Your task to perform on an android device: open a new tab in the chrome app Image 0: 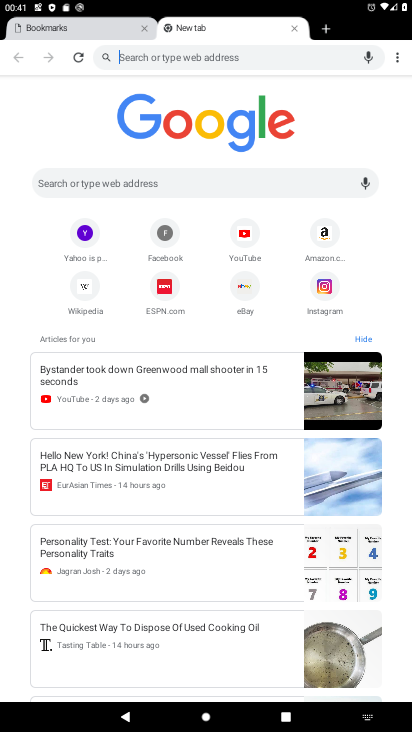
Step 0: press home button
Your task to perform on an android device: open a new tab in the chrome app Image 1: 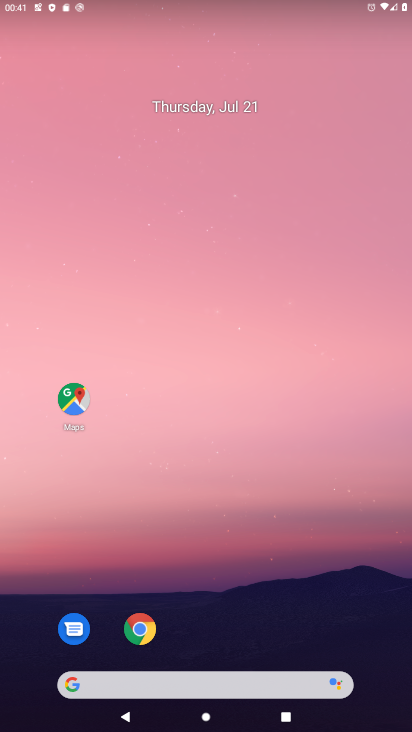
Step 1: drag from (339, 578) to (115, 361)
Your task to perform on an android device: open a new tab in the chrome app Image 2: 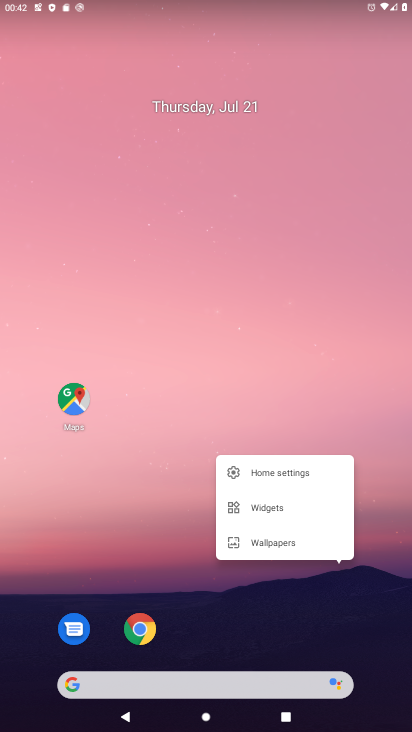
Step 2: click (343, 573)
Your task to perform on an android device: open a new tab in the chrome app Image 3: 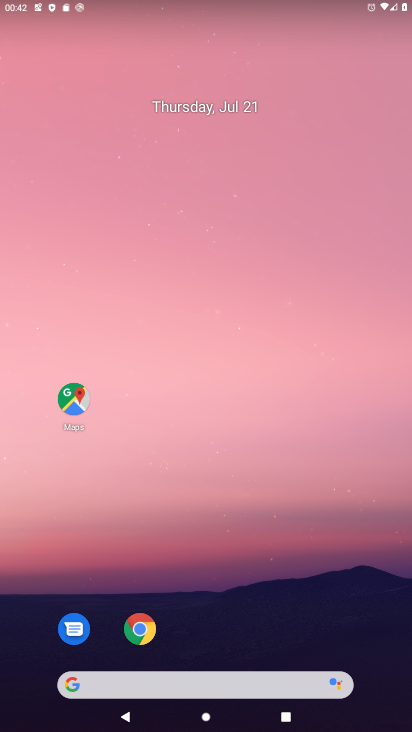
Step 3: click (316, 572)
Your task to perform on an android device: open a new tab in the chrome app Image 4: 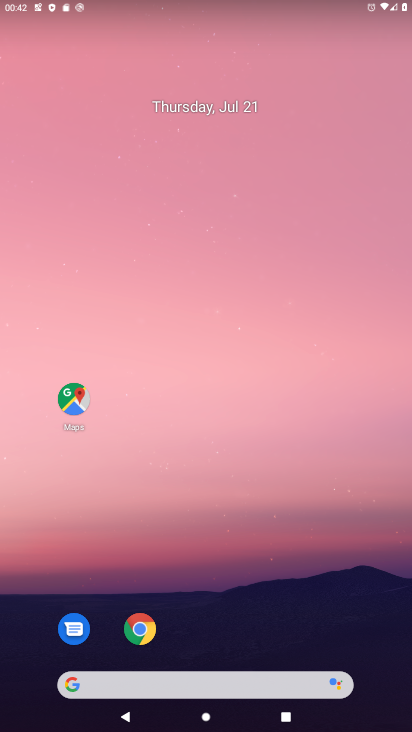
Step 4: drag from (340, 595) to (329, 63)
Your task to perform on an android device: open a new tab in the chrome app Image 5: 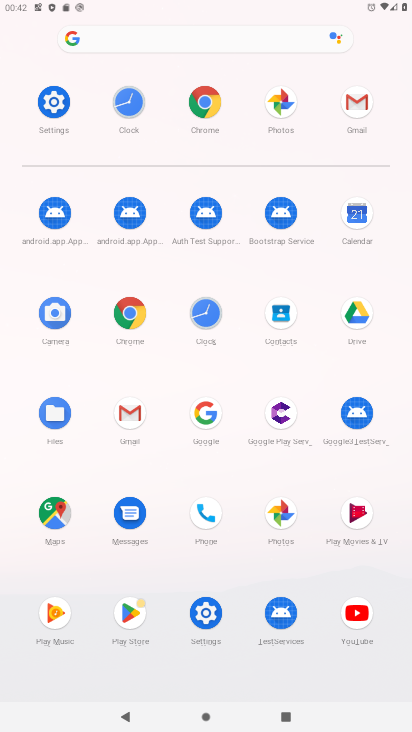
Step 5: click (126, 307)
Your task to perform on an android device: open a new tab in the chrome app Image 6: 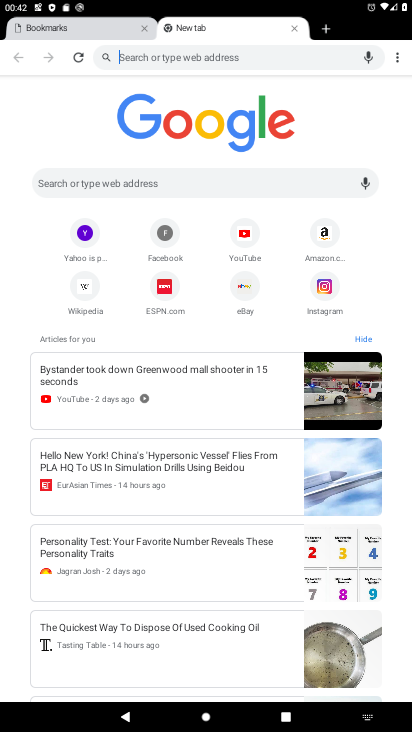
Step 6: task complete